Your task to perform on an android device: toggle pop-ups in chrome Image 0: 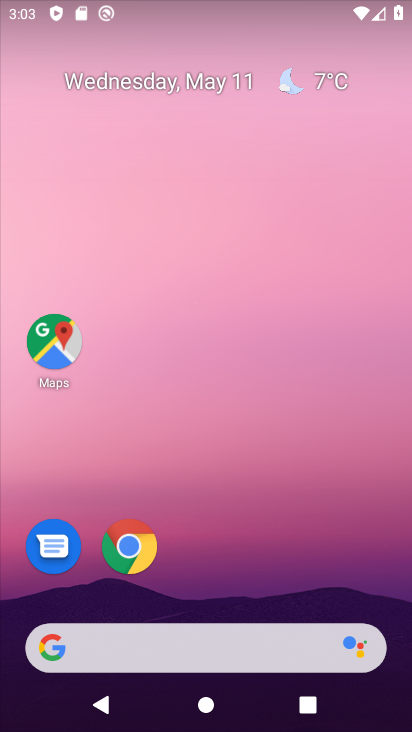
Step 0: drag from (269, 614) to (346, 12)
Your task to perform on an android device: toggle pop-ups in chrome Image 1: 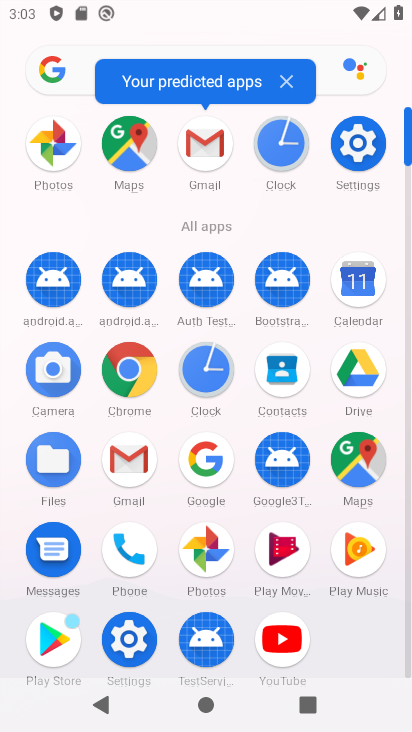
Step 1: click (125, 381)
Your task to perform on an android device: toggle pop-ups in chrome Image 2: 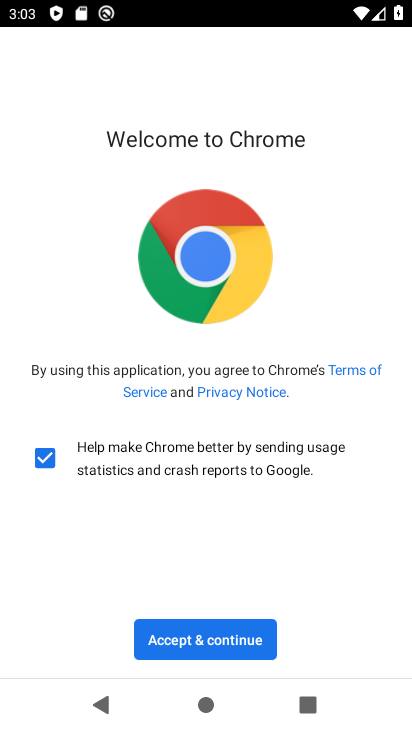
Step 2: click (230, 640)
Your task to perform on an android device: toggle pop-ups in chrome Image 3: 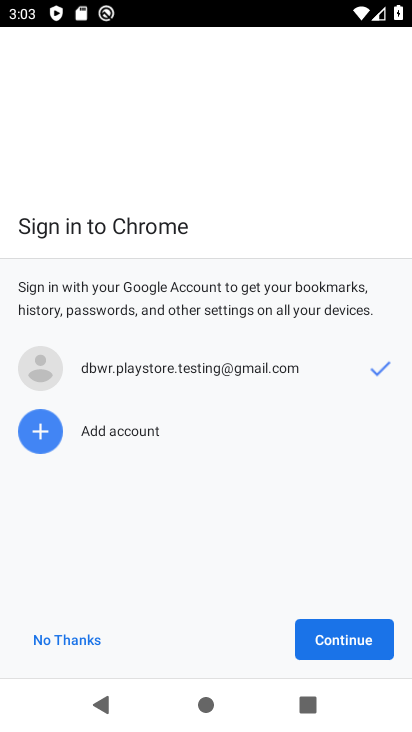
Step 3: click (67, 642)
Your task to perform on an android device: toggle pop-ups in chrome Image 4: 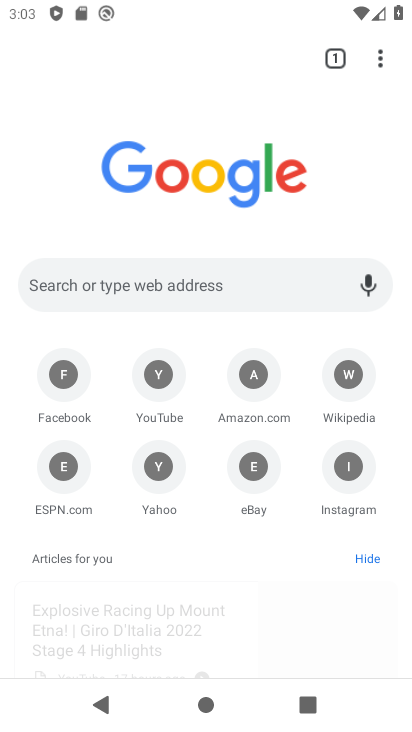
Step 4: click (383, 59)
Your task to perform on an android device: toggle pop-ups in chrome Image 5: 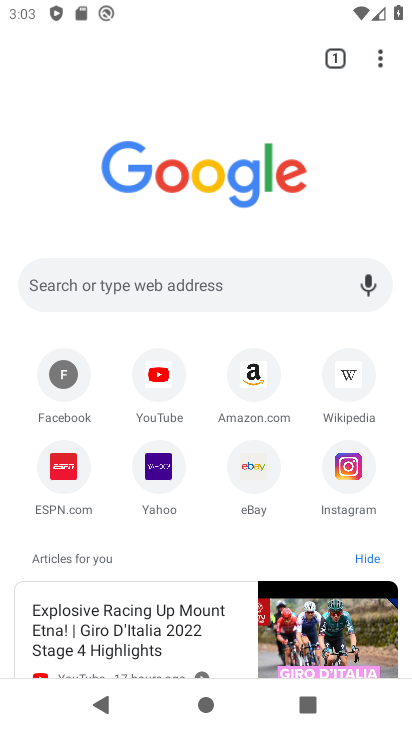
Step 5: drag from (379, 51) to (221, 503)
Your task to perform on an android device: toggle pop-ups in chrome Image 6: 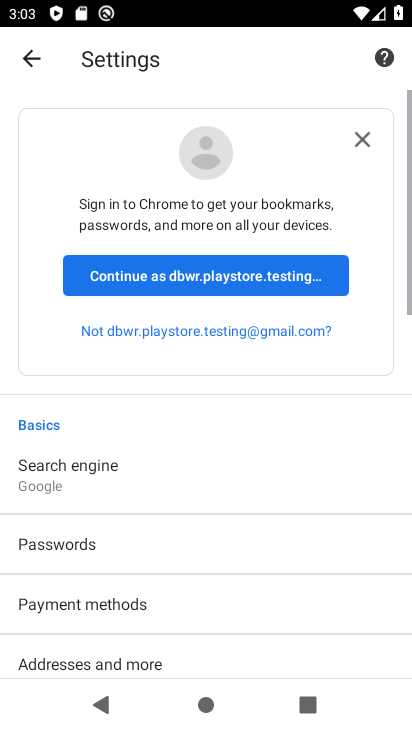
Step 6: drag from (222, 570) to (358, 56)
Your task to perform on an android device: toggle pop-ups in chrome Image 7: 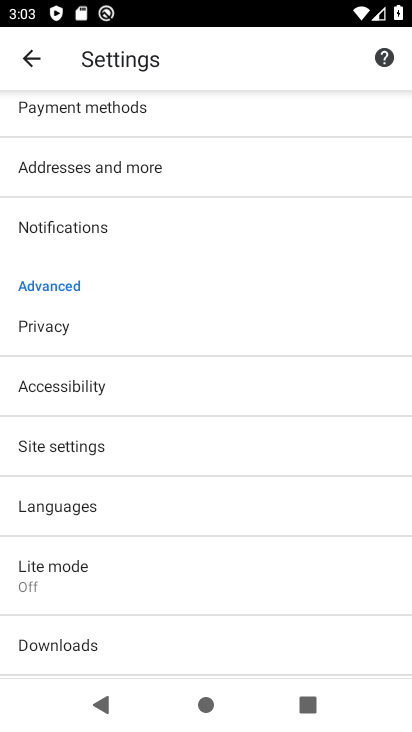
Step 7: click (111, 456)
Your task to perform on an android device: toggle pop-ups in chrome Image 8: 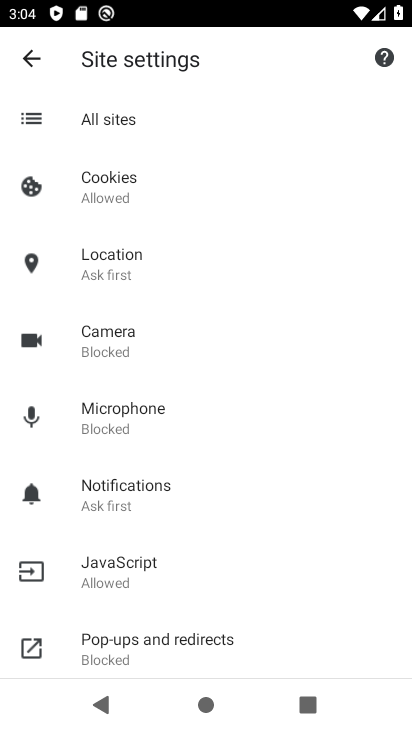
Step 8: click (188, 654)
Your task to perform on an android device: toggle pop-ups in chrome Image 9: 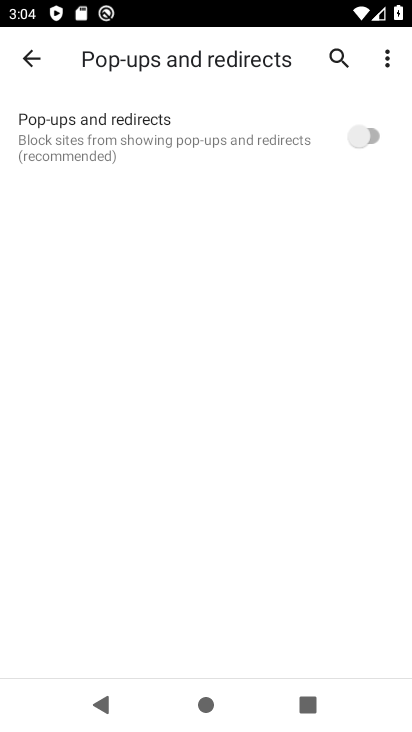
Step 9: click (371, 137)
Your task to perform on an android device: toggle pop-ups in chrome Image 10: 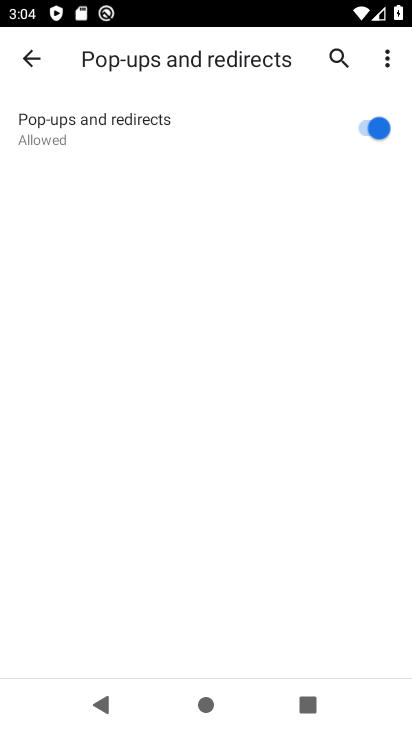
Step 10: task complete